Your task to perform on an android device: toggle priority inbox in the gmail app Image 0: 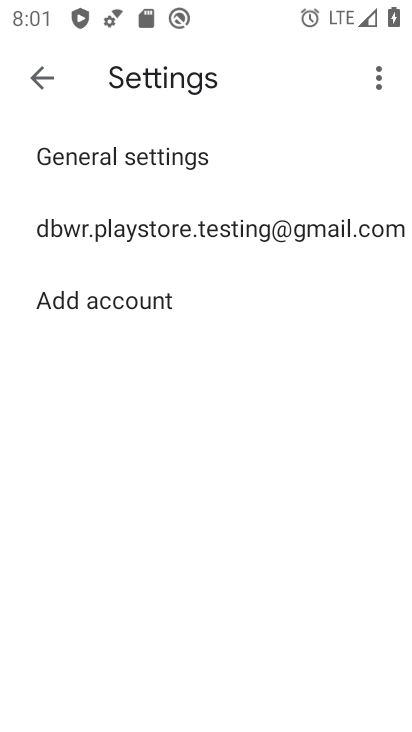
Step 0: click (306, 241)
Your task to perform on an android device: toggle priority inbox in the gmail app Image 1: 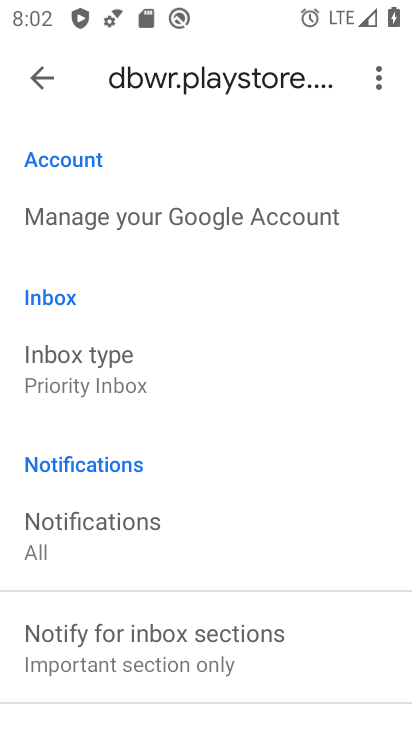
Step 1: drag from (215, 588) to (277, 189)
Your task to perform on an android device: toggle priority inbox in the gmail app Image 2: 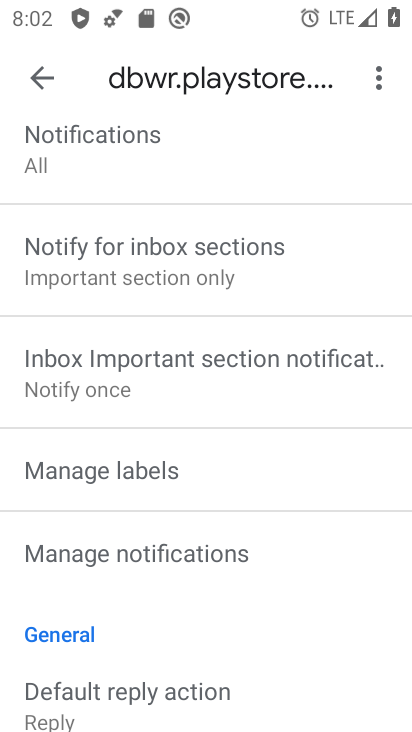
Step 2: drag from (248, 594) to (243, 213)
Your task to perform on an android device: toggle priority inbox in the gmail app Image 3: 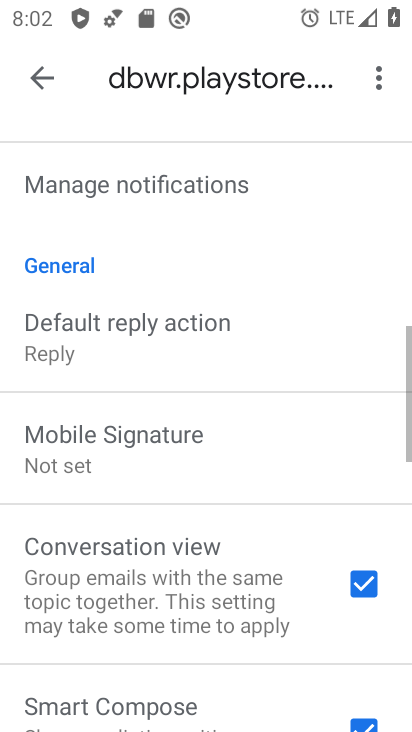
Step 3: click (243, 210)
Your task to perform on an android device: toggle priority inbox in the gmail app Image 4: 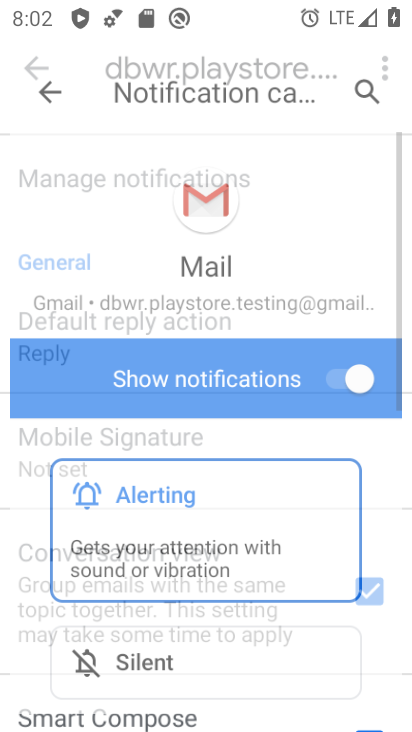
Step 4: drag from (177, 607) to (236, 330)
Your task to perform on an android device: toggle priority inbox in the gmail app Image 5: 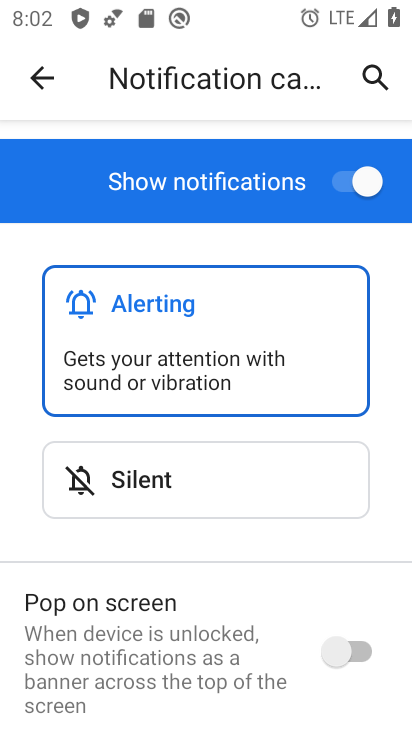
Step 5: click (45, 76)
Your task to perform on an android device: toggle priority inbox in the gmail app Image 6: 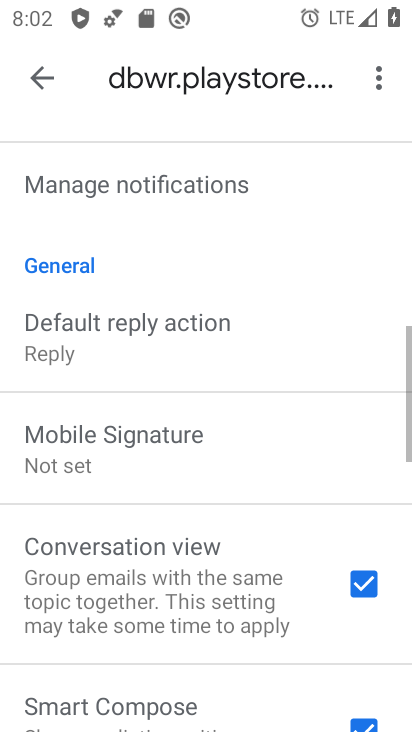
Step 6: drag from (237, 596) to (296, 712)
Your task to perform on an android device: toggle priority inbox in the gmail app Image 7: 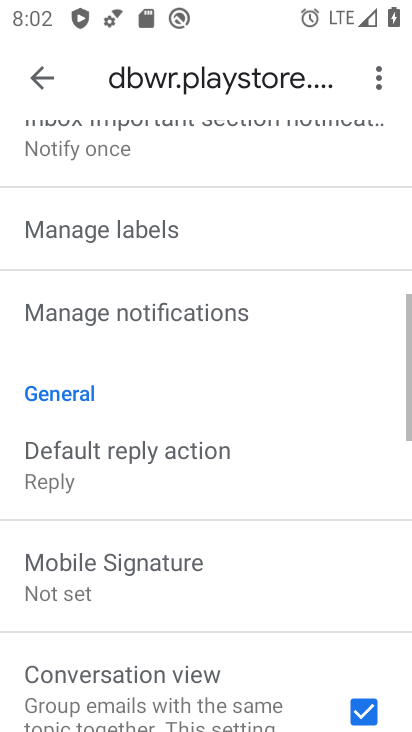
Step 7: drag from (170, 198) to (286, 726)
Your task to perform on an android device: toggle priority inbox in the gmail app Image 8: 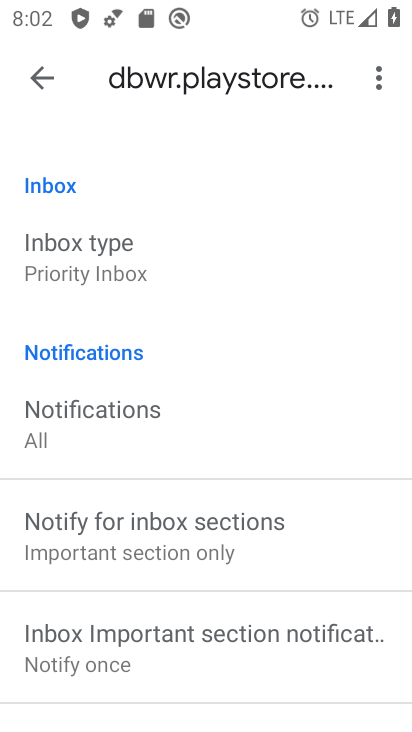
Step 8: click (113, 255)
Your task to perform on an android device: toggle priority inbox in the gmail app Image 9: 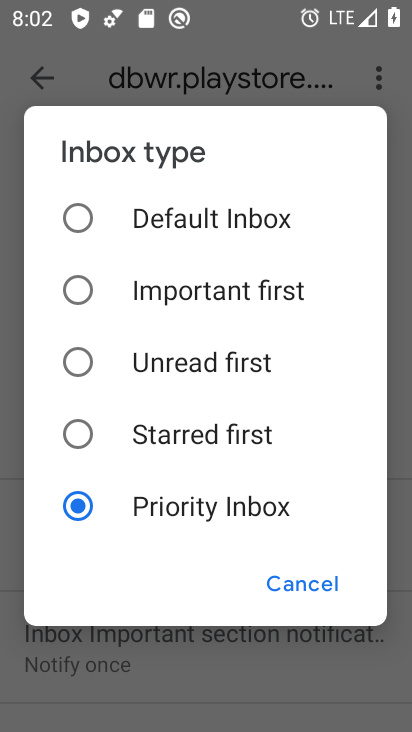
Step 9: click (240, 227)
Your task to perform on an android device: toggle priority inbox in the gmail app Image 10: 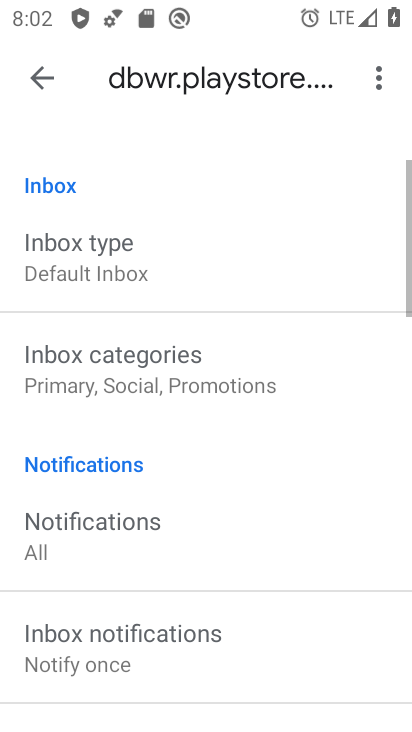
Step 10: task complete